Your task to perform on an android device: turn on improve location accuracy Image 0: 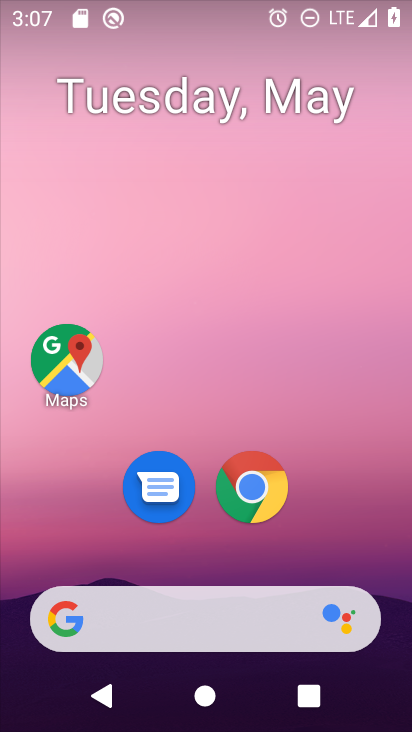
Step 0: drag from (17, 616) to (213, 170)
Your task to perform on an android device: turn on improve location accuracy Image 1: 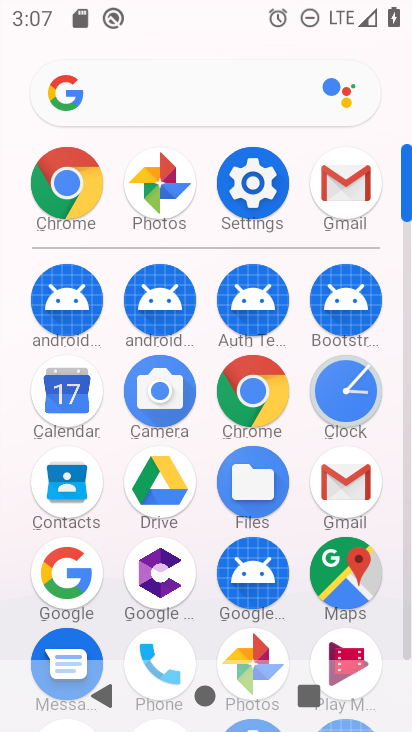
Step 1: click (267, 196)
Your task to perform on an android device: turn on improve location accuracy Image 2: 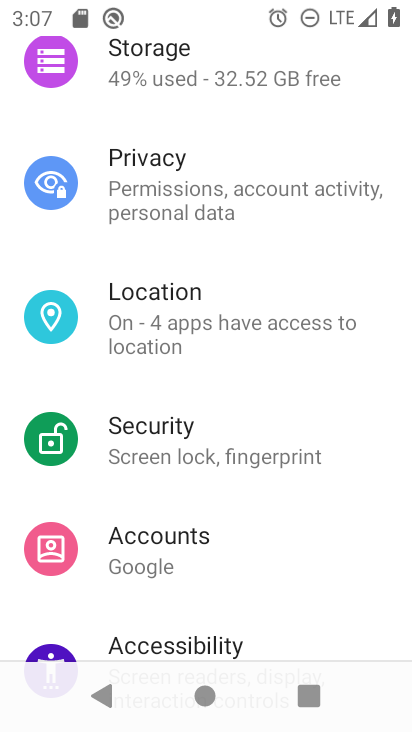
Step 2: click (183, 316)
Your task to perform on an android device: turn on improve location accuracy Image 3: 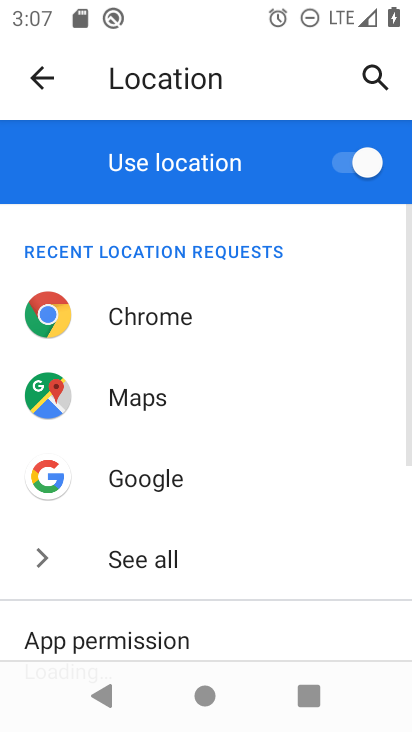
Step 3: drag from (12, 621) to (225, 159)
Your task to perform on an android device: turn on improve location accuracy Image 4: 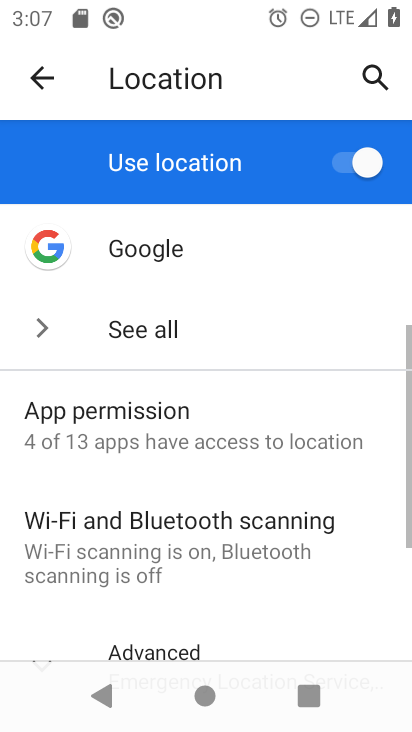
Step 4: drag from (11, 624) to (188, 286)
Your task to perform on an android device: turn on improve location accuracy Image 5: 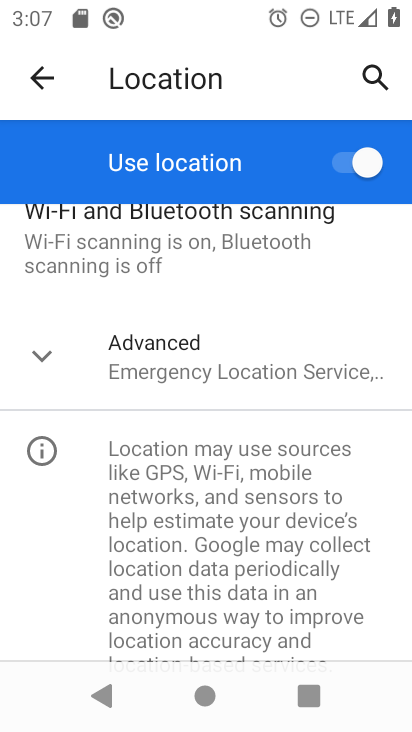
Step 5: click (221, 367)
Your task to perform on an android device: turn on improve location accuracy Image 6: 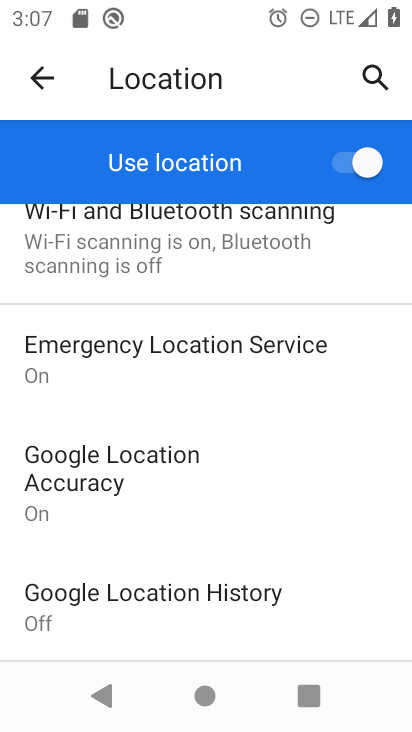
Step 6: click (52, 492)
Your task to perform on an android device: turn on improve location accuracy Image 7: 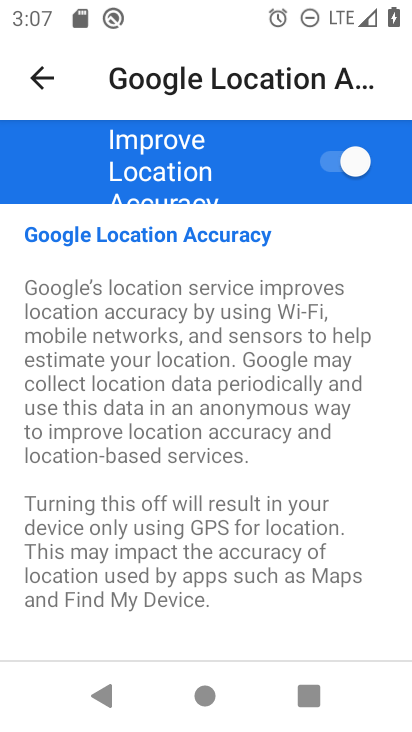
Step 7: task complete